Your task to perform on an android device: Open calendar and show me the second week of next month Image 0: 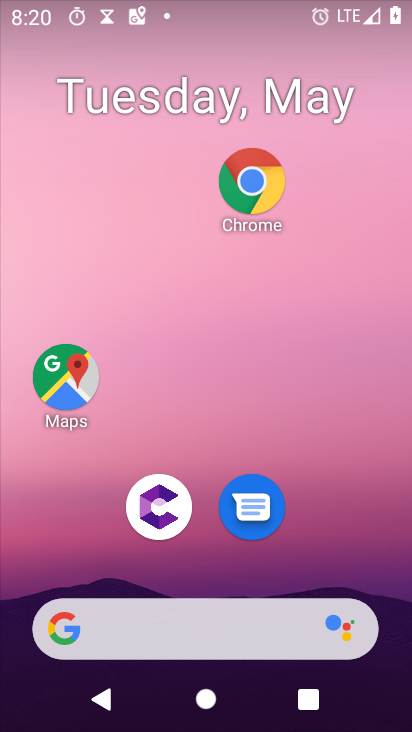
Step 0: drag from (295, 545) to (303, 8)
Your task to perform on an android device: Open calendar and show me the second week of next month Image 1: 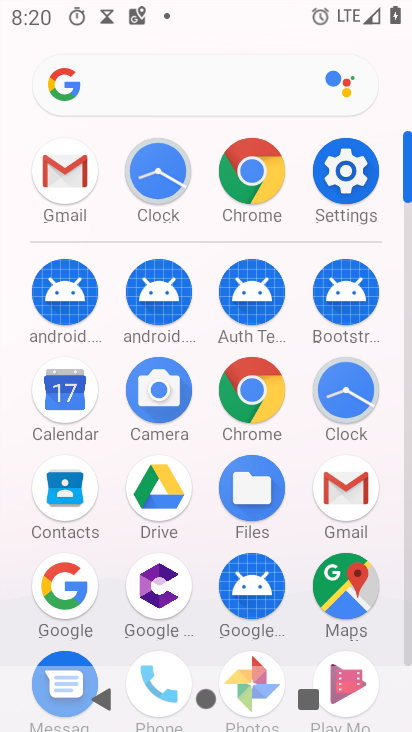
Step 1: click (61, 395)
Your task to perform on an android device: Open calendar and show me the second week of next month Image 2: 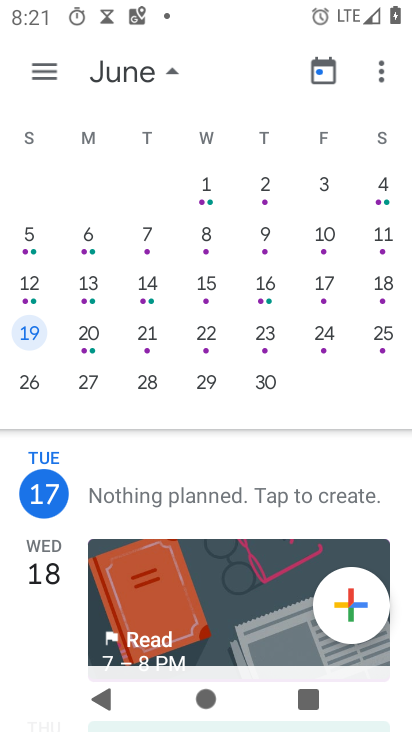
Step 2: click (32, 242)
Your task to perform on an android device: Open calendar and show me the second week of next month Image 3: 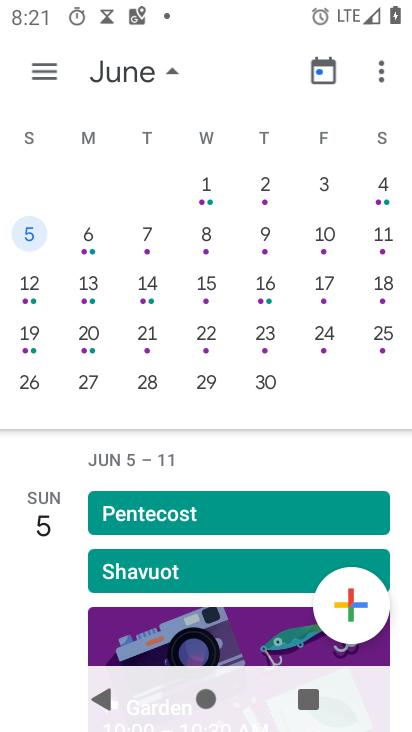
Step 3: task complete